Your task to perform on an android device: turn off picture-in-picture Image 0: 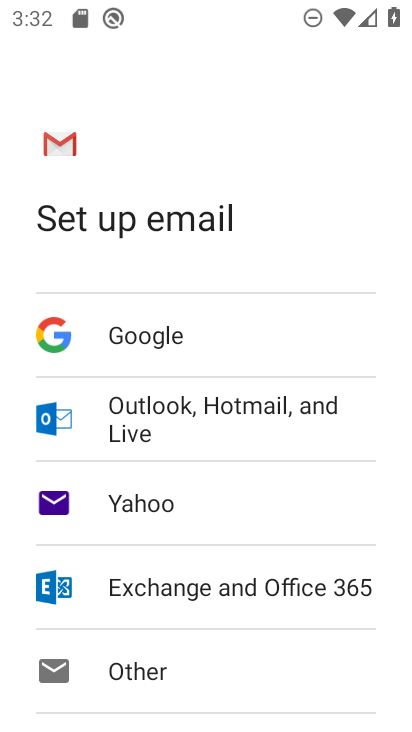
Step 0: press home button
Your task to perform on an android device: turn off picture-in-picture Image 1: 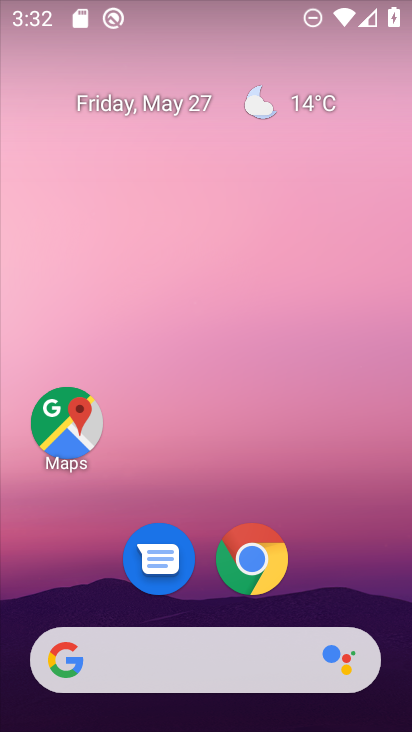
Step 1: drag from (314, 350) to (266, 37)
Your task to perform on an android device: turn off picture-in-picture Image 2: 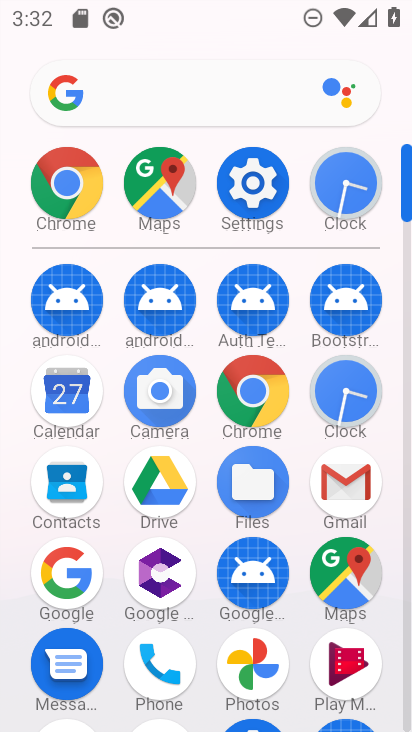
Step 2: click (263, 210)
Your task to perform on an android device: turn off picture-in-picture Image 3: 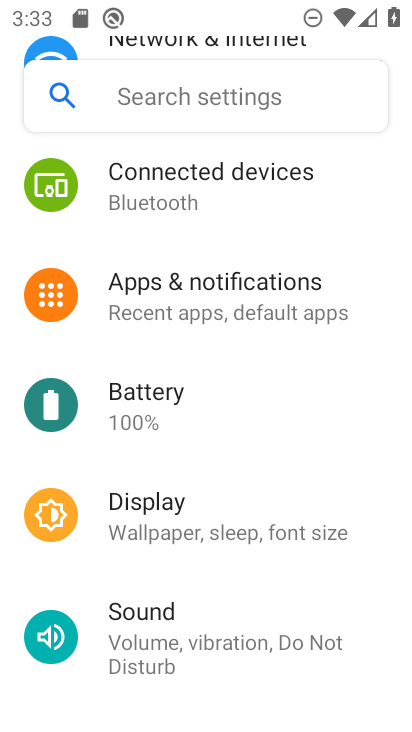
Step 3: click (285, 310)
Your task to perform on an android device: turn off picture-in-picture Image 4: 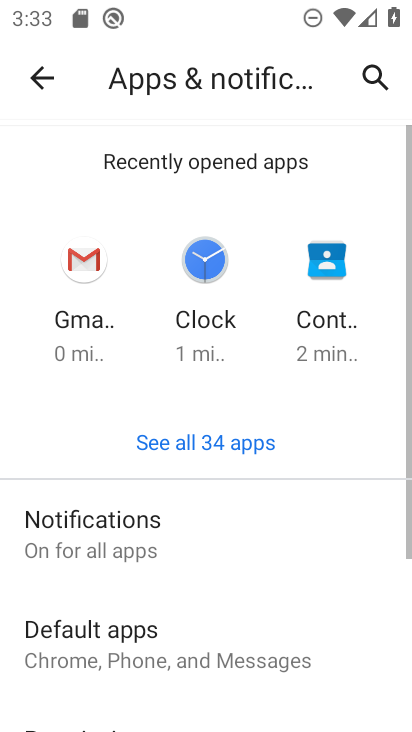
Step 4: drag from (338, 548) to (346, 31)
Your task to perform on an android device: turn off picture-in-picture Image 5: 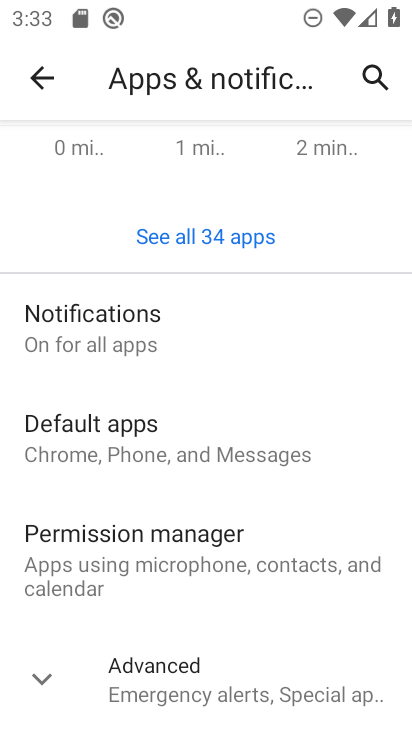
Step 5: drag from (333, 497) to (299, 114)
Your task to perform on an android device: turn off picture-in-picture Image 6: 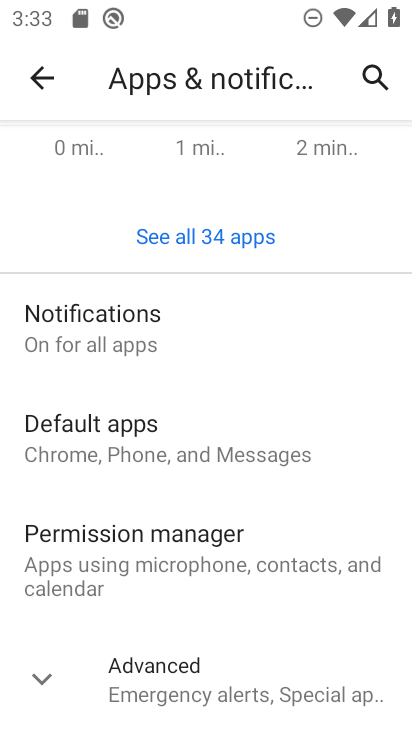
Step 6: drag from (290, 484) to (314, 122)
Your task to perform on an android device: turn off picture-in-picture Image 7: 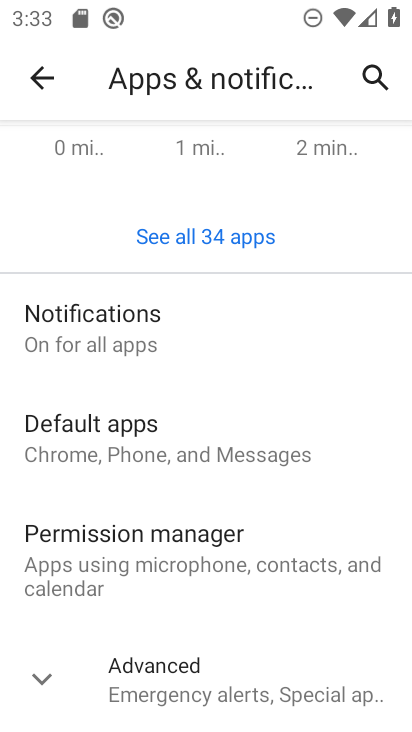
Step 7: click (194, 668)
Your task to perform on an android device: turn off picture-in-picture Image 8: 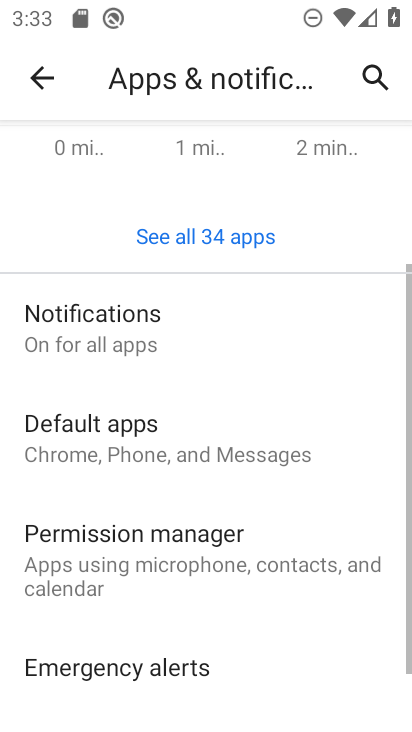
Step 8: drag from (257, 646) to (288, 139)
Your task to perform on an android device: turn off picture-in-picture Image 9: 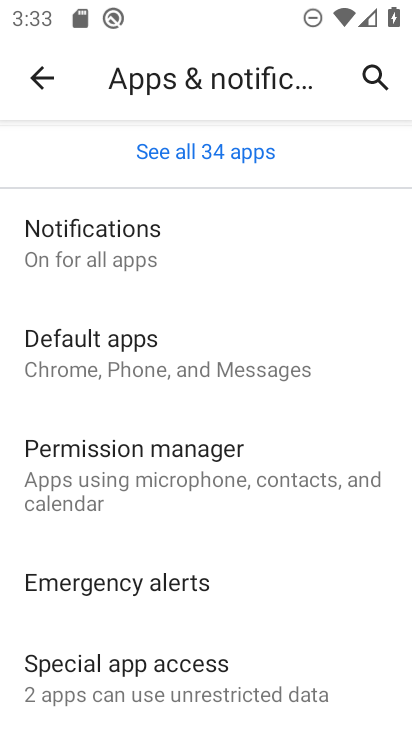
Step 9: click (198, 676)
Your task to perform on an android device: turn off picture-in-picture Image 10: 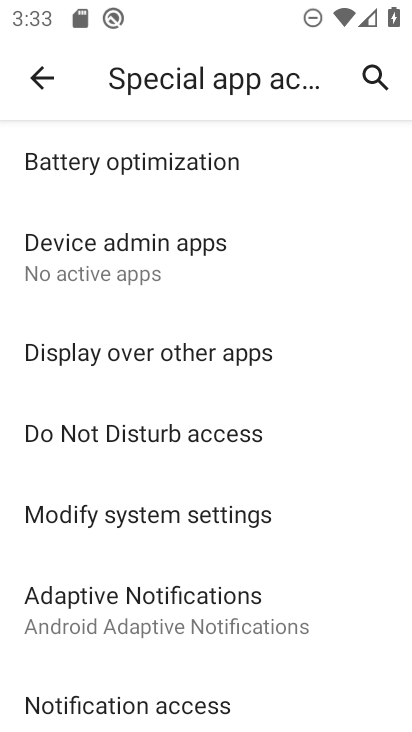
Step 10: drag from (310, 576) to (292, 144)
Your task to perform on an android device: turn off picture-in-picture Image 11: 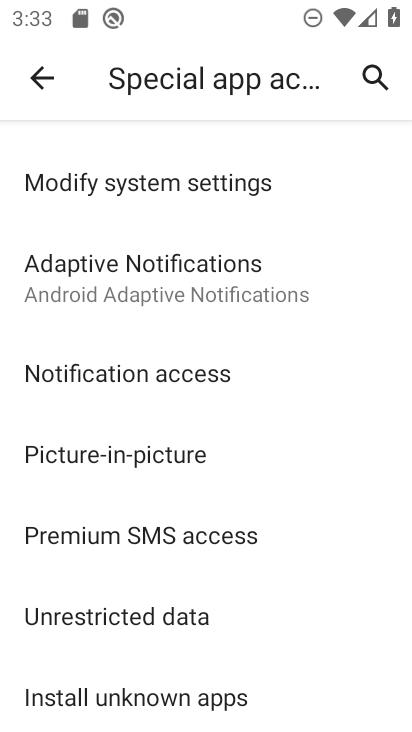
Step 11: click (135, 468)
Your task to perform on an android device: turn off picture-in-picture Image 12: 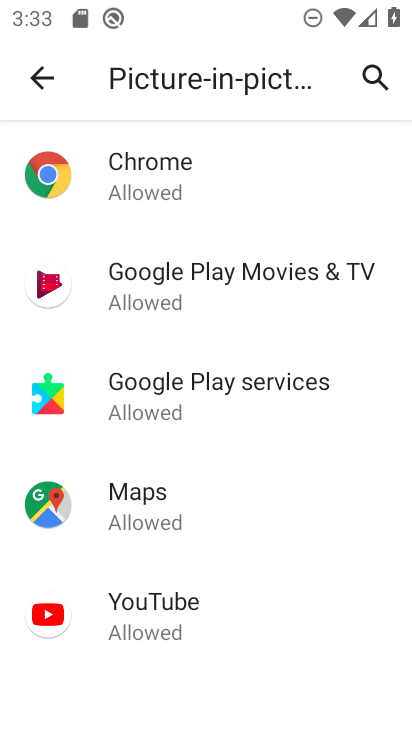
Step 12: click (198, 182)
Your task to perform on an android device: turn off picture-in-picture Image 13: 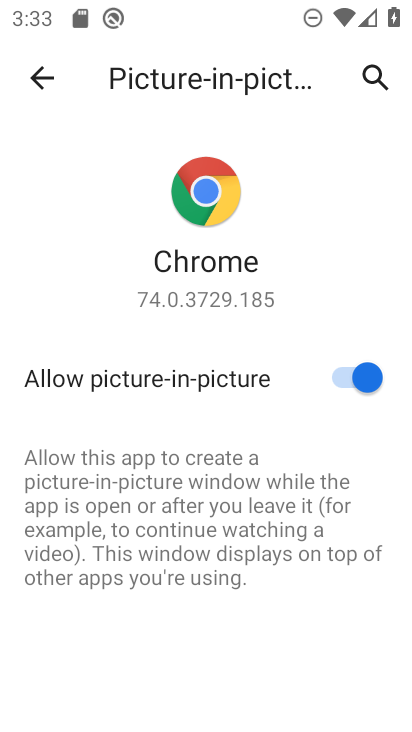
Step 13: click (359, 384)
Your task to perform on an android device: turn off picture-in-picture Image 14: 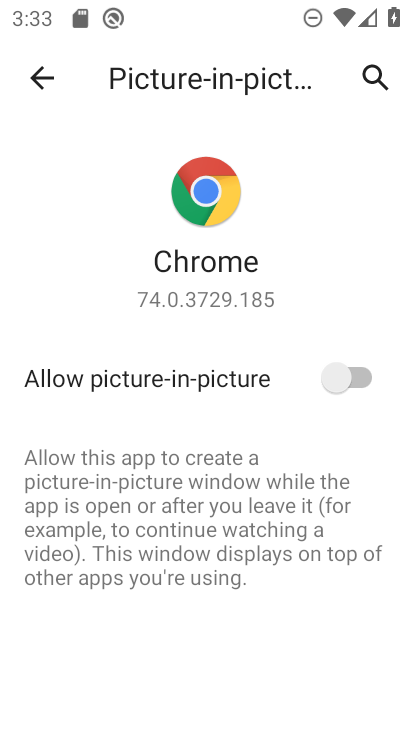
Step 14: press back button
Your task to perform on an android device: turn off picture-in-picture Image 15: 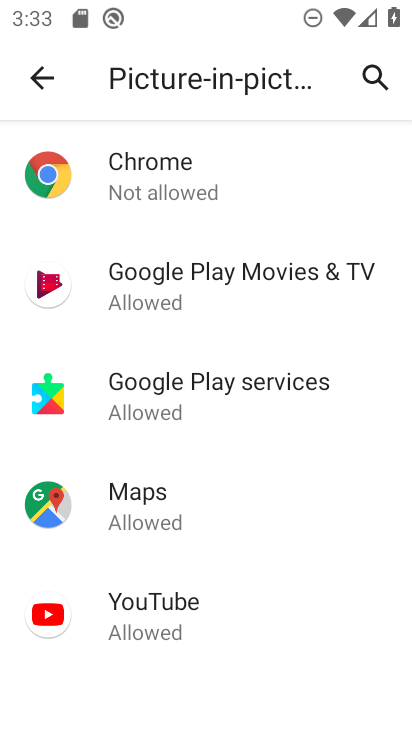
Step 15: click (325, 285)
Your task to perform on an android device: turn off picture-in-picture Image 16: 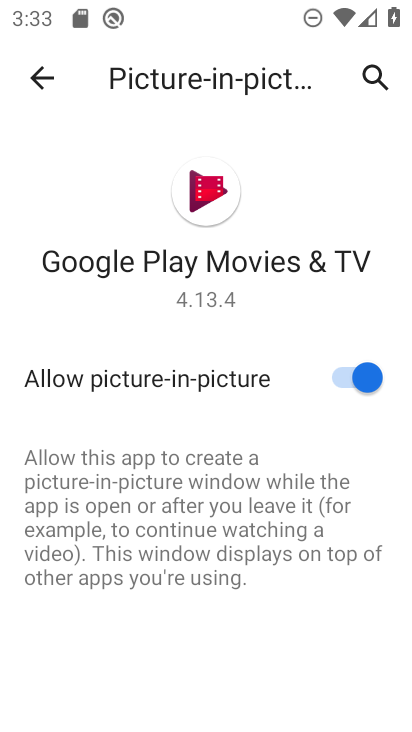
Step 16: click (367, 381)
Your task to perform on an android device: turn off picture-in-picture Image 17: 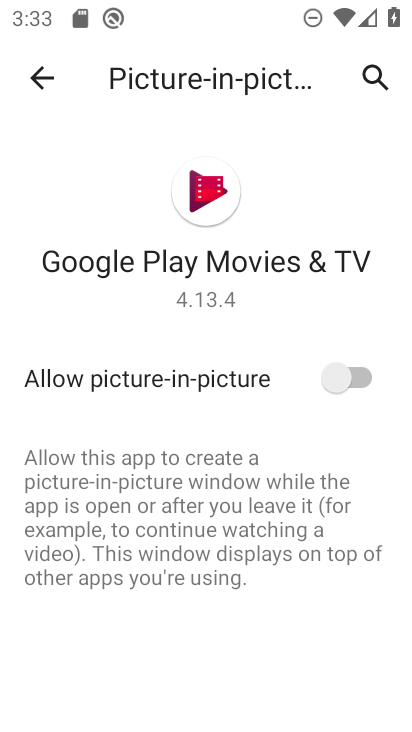
Step 17: press back button
Your task to perform on an android device: turn off picture-in-picture Image 18: 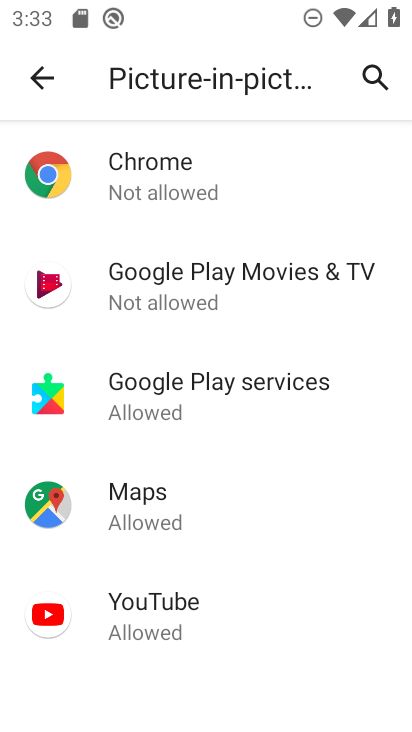
Step 18: click (184, 408)
Your task to perform on an android device: turn off picture-in-picture Image 19: 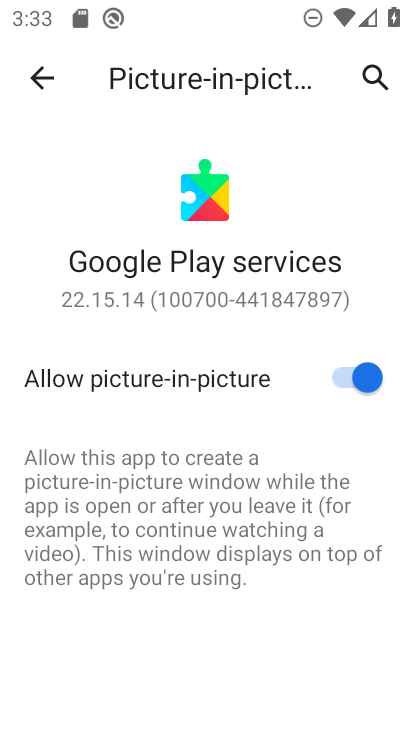
Step 19: click (349, 370)
Your task to perform on an android device: turn off picture-in-picture Image 20: 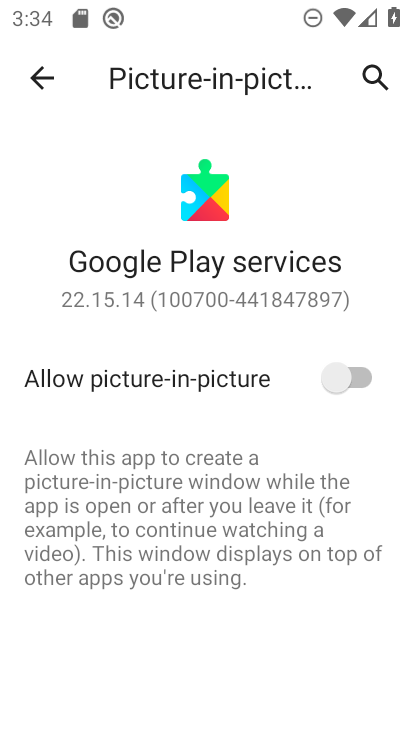
Step 20: press back button
Your task to perform on an android device: turn off picture-in-picture Image 21: 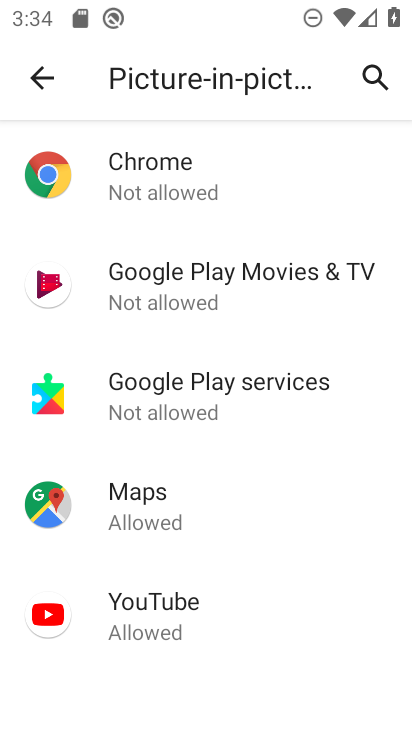
Step 21: click (175, 502)
Your task to perform on an android device: turn off picture-in-picture Image 22: 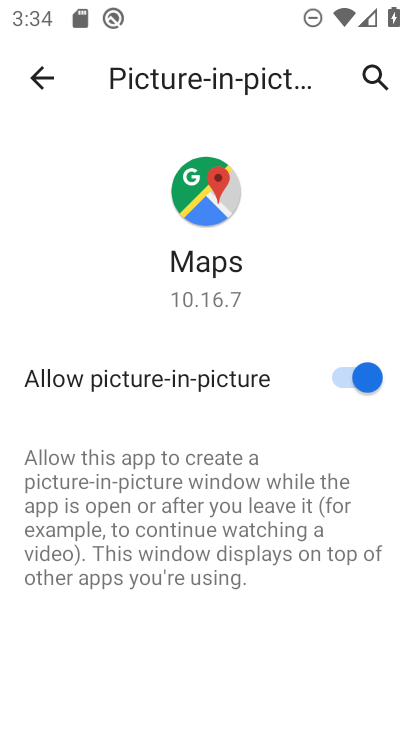
Step 22: click (363, 398)
Your task to perform on an android device: turn off picture-in-picture Image 23: 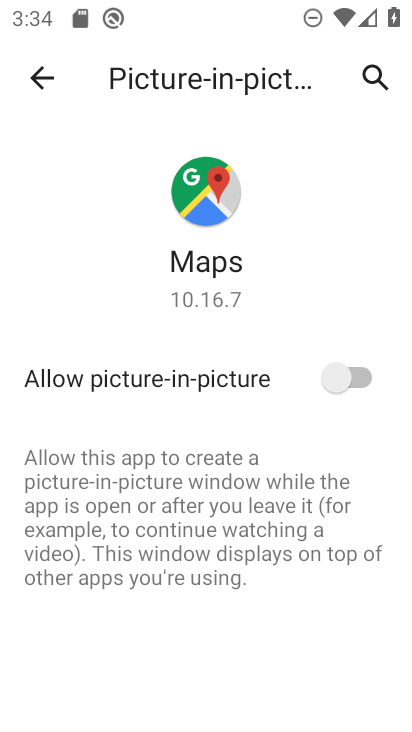
Step 23: press back button
Your task to perform on an android device: turn off picture-in-picture Image 24: 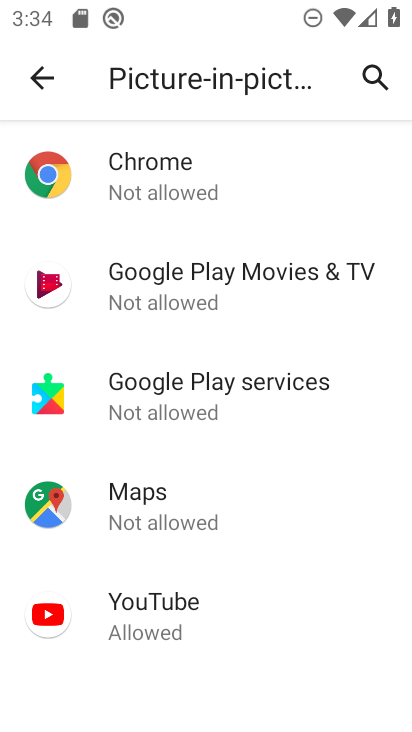
Step 24: click (187, 603)
Your task to perform on an android device: turn off picture-in-picture Image 25: 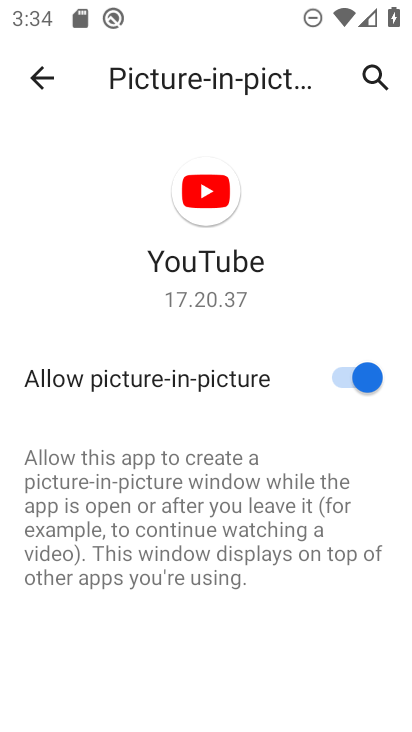
Step 25: click (371, 381)
Your task to perform on an android device: turn off picture-in-picture Image 26: 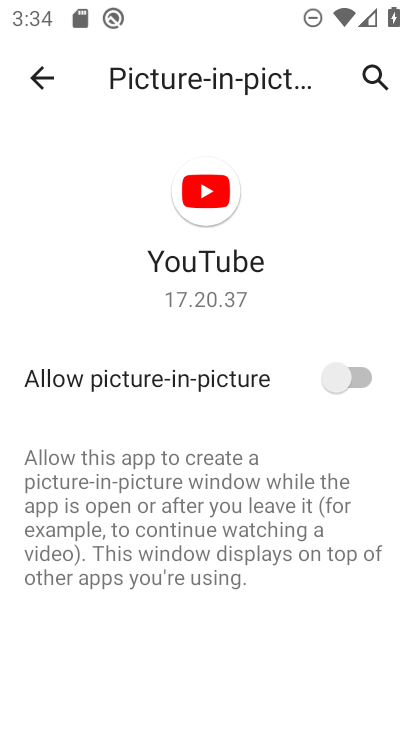
Step 26: task complete